Your task to perform on an android device: change the clock style Image 0: 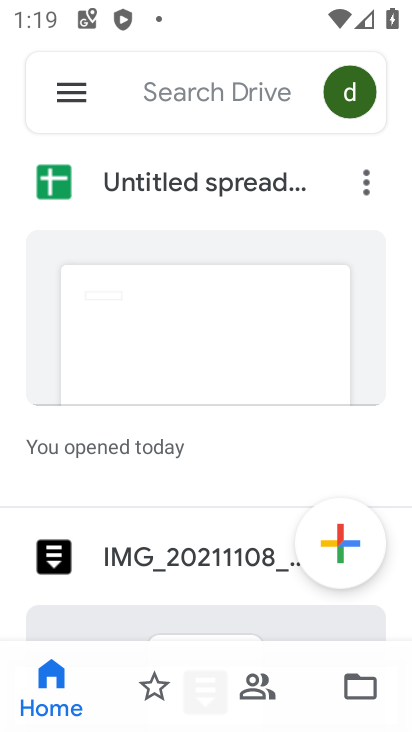
Step 0: press home button
Your task to perform on an android device: change the clock style Image 1: 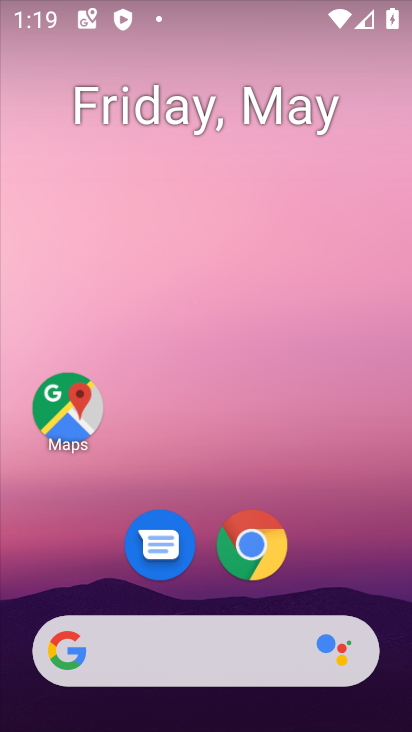
Step 1: drag from (345, 550) to (203, 34)
Your task to perform on an android device: change the clock style Image 2: 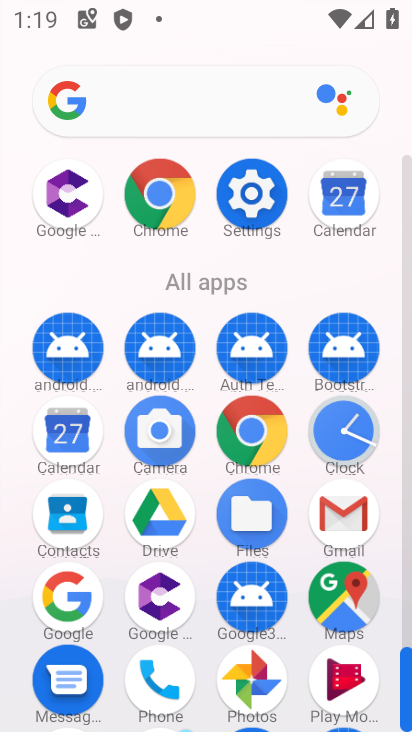
Step 2: click (351, 417)
Your task to perform on an android device: change the clock style Image 3: 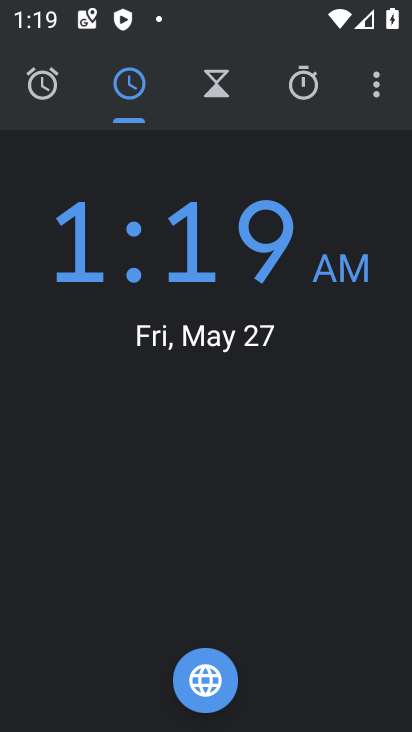
Step 3: click (360, 84)
Your task to perform on an android device: change the clock style Image 4: 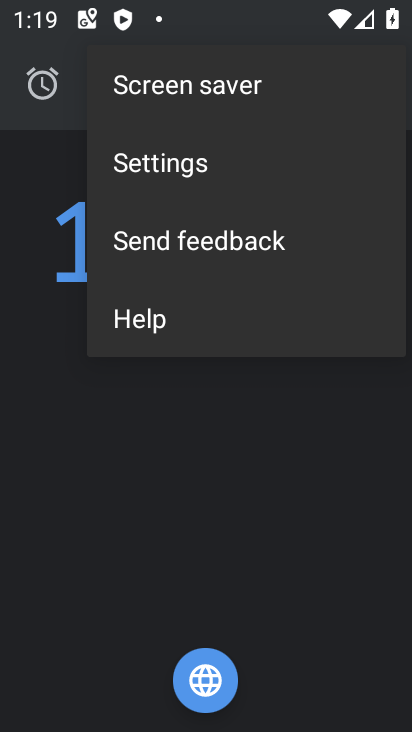
Step 4: click (147, 145)
Your task to perform on an android device: change the clock style Image 5: 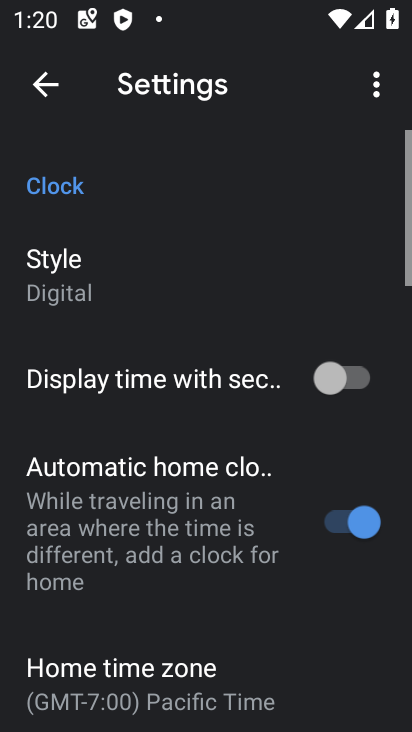
Step 5: click (152, 279)
Your task to perform on an android device: change the clock style Image 6: 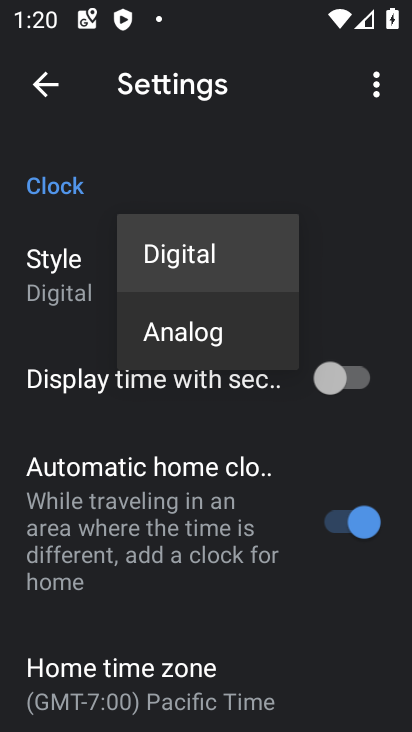
Step 6: click (181, 329)
Your task to perform on an android device: change the clock style Image 7: 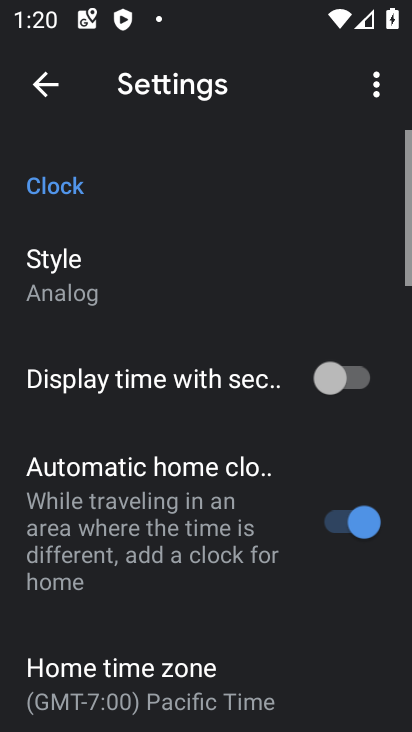
Step 7: task complete